Your task to perform on an android device: turn off airplane mode Image 0: 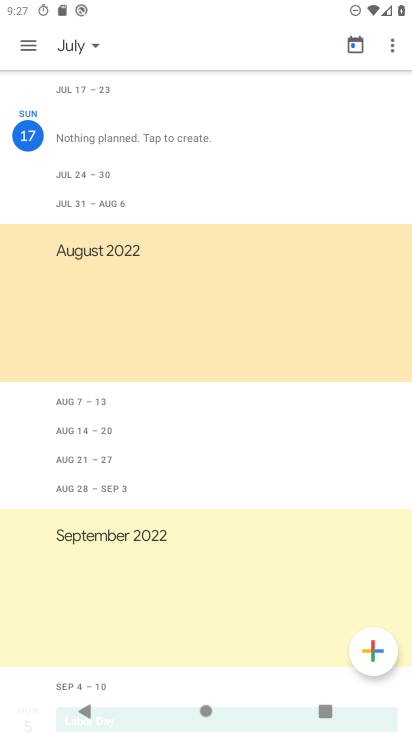
Step 0: click (287, 604)
Your task to perform on an android device: turn off airplane mode Image 1: 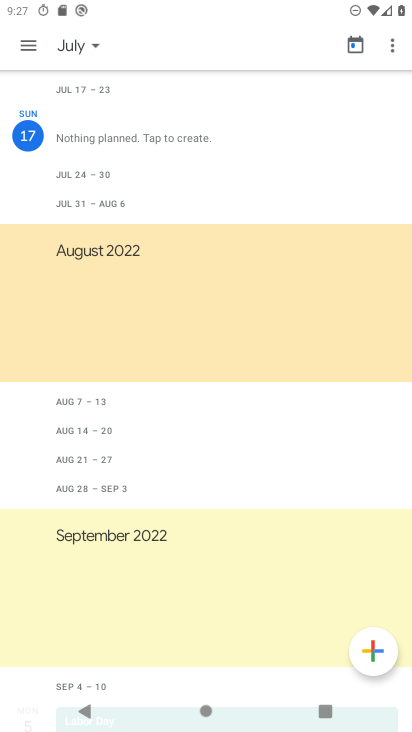
Step 1: press home button
Your task to perform on an android device: turn off airplane mode Image 2: 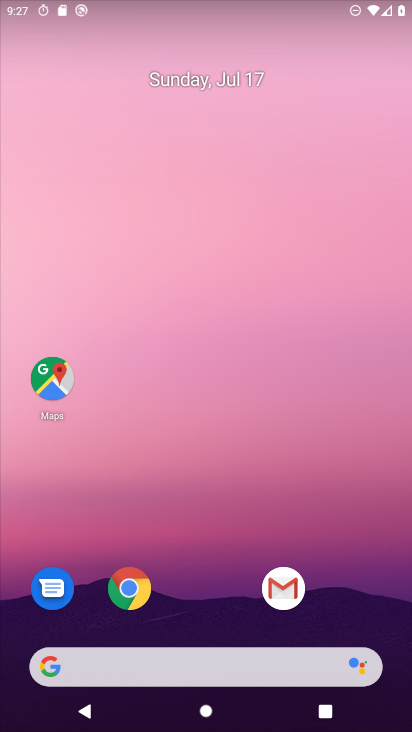
Step 2: click (287, 596)
Your task to perform on an android device: turn off airplane mode Image 3: 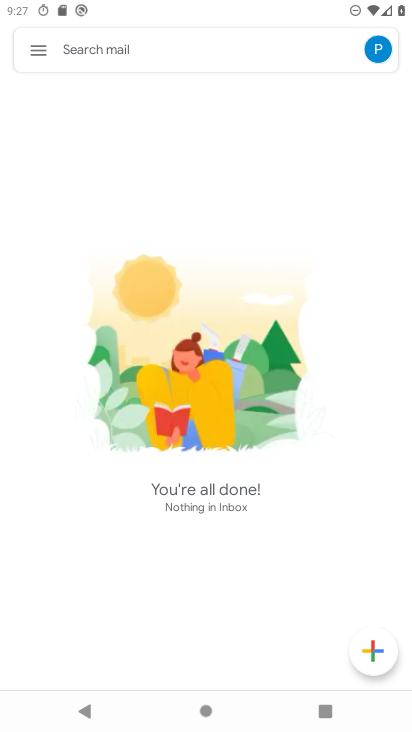
Step 3: click (34, 56)
Your task to perform on an android device: turn off airplane mode Image 4: 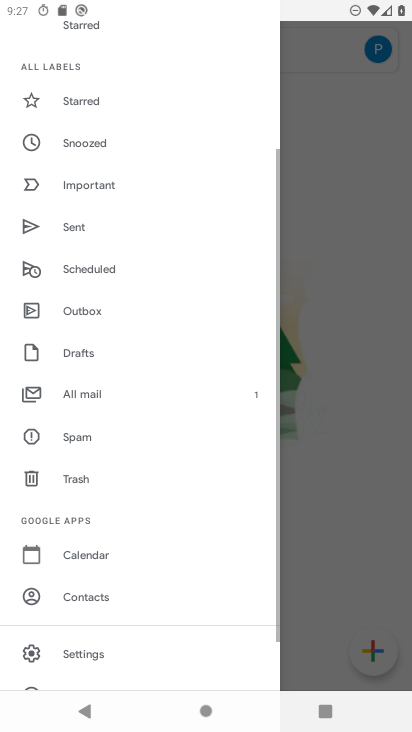
Step 4: press home button
Your task to perform on an android device: turn off airplane mode Image 5: 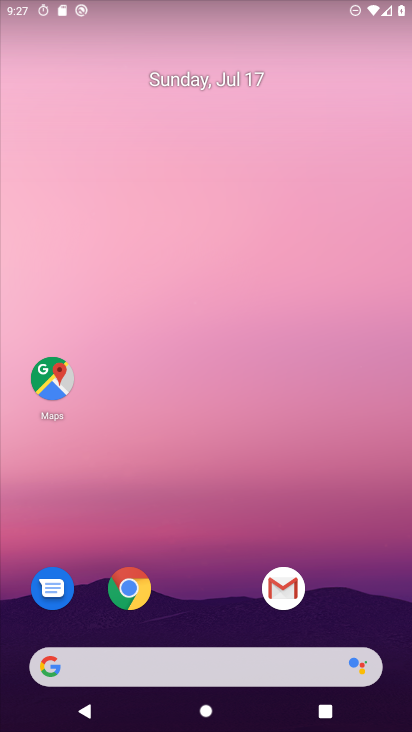
Step 5: drag from (228, 672) to (328, 82)
Your task to perform on an android device: turn off airplane mode Image 6: 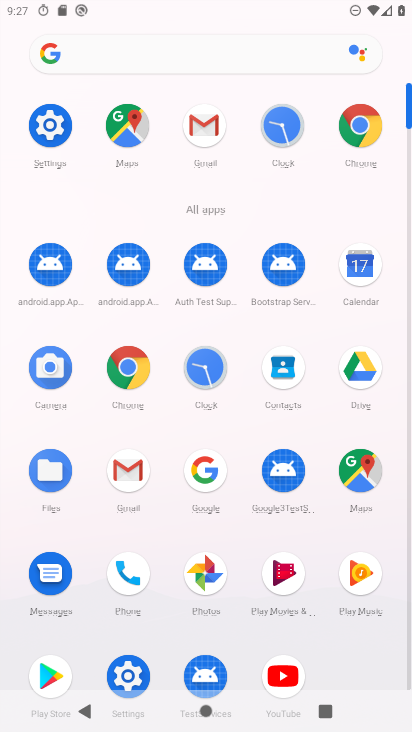
Step 6: drag from (59, 116) to (343, 621)
Your task to perform on an android device: turn off airplane mode Image 7: 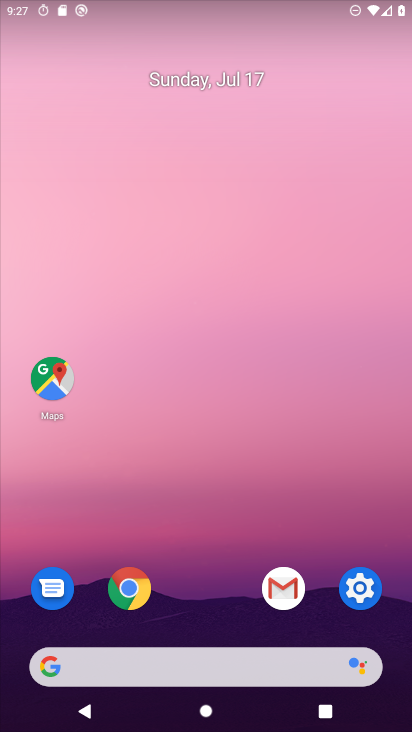
Step 7: click (361, 589)
Your task to perform on an android device: turn off airplane mode Image 8: 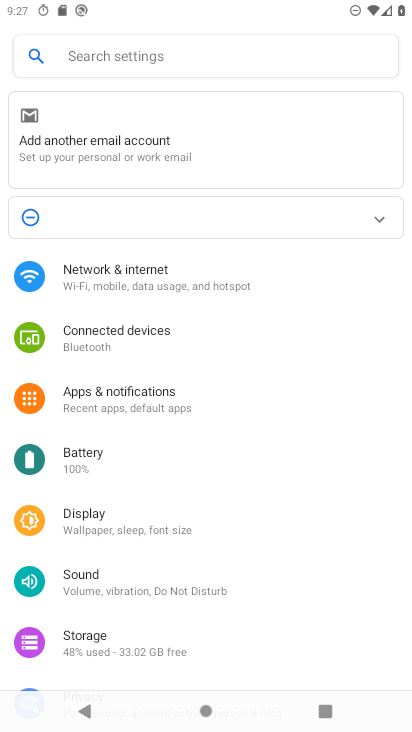
Step 8: click (171, 268)
Your task to perform on an android device: turn off airplane mode Image 9: 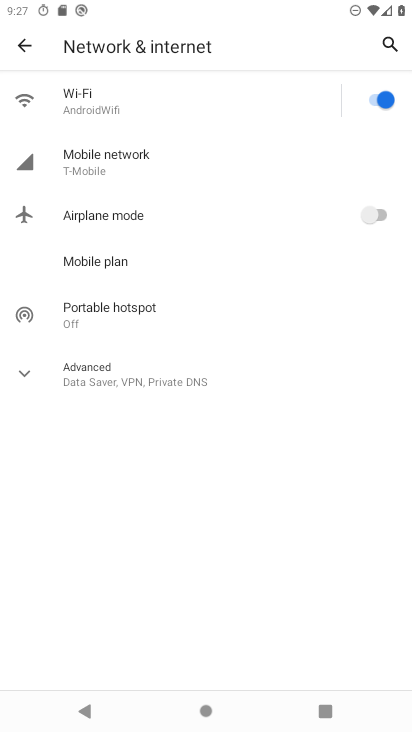
Step 9: click (385, 198)
Your task to perform on an android device: turn off airplane mode Image 10: 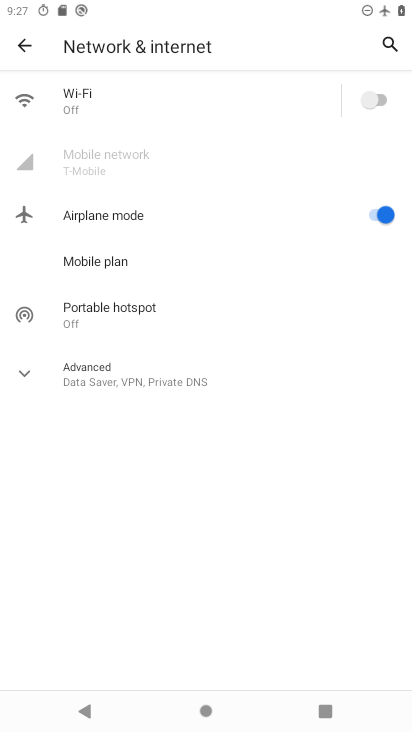
Step 10: click (383, 204)
Your task to perform on an android device: turn off airplane mode Image 11: 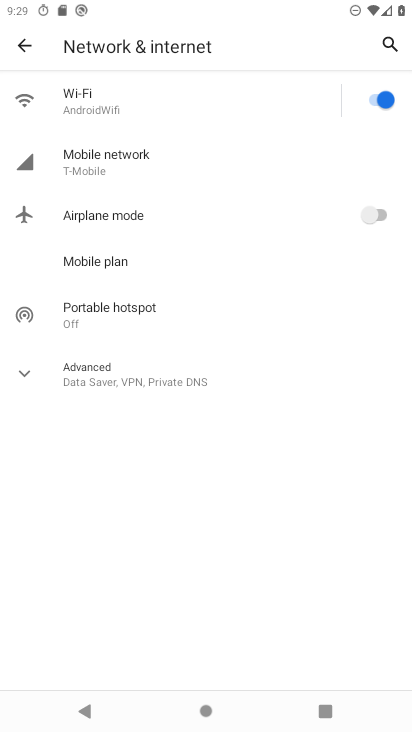
Step 11: task complete